Your task to perform on an android device: Clear all items from cart on target. Search for "razer blade" on target, select the first entry, and add it to the cart. Image 0: 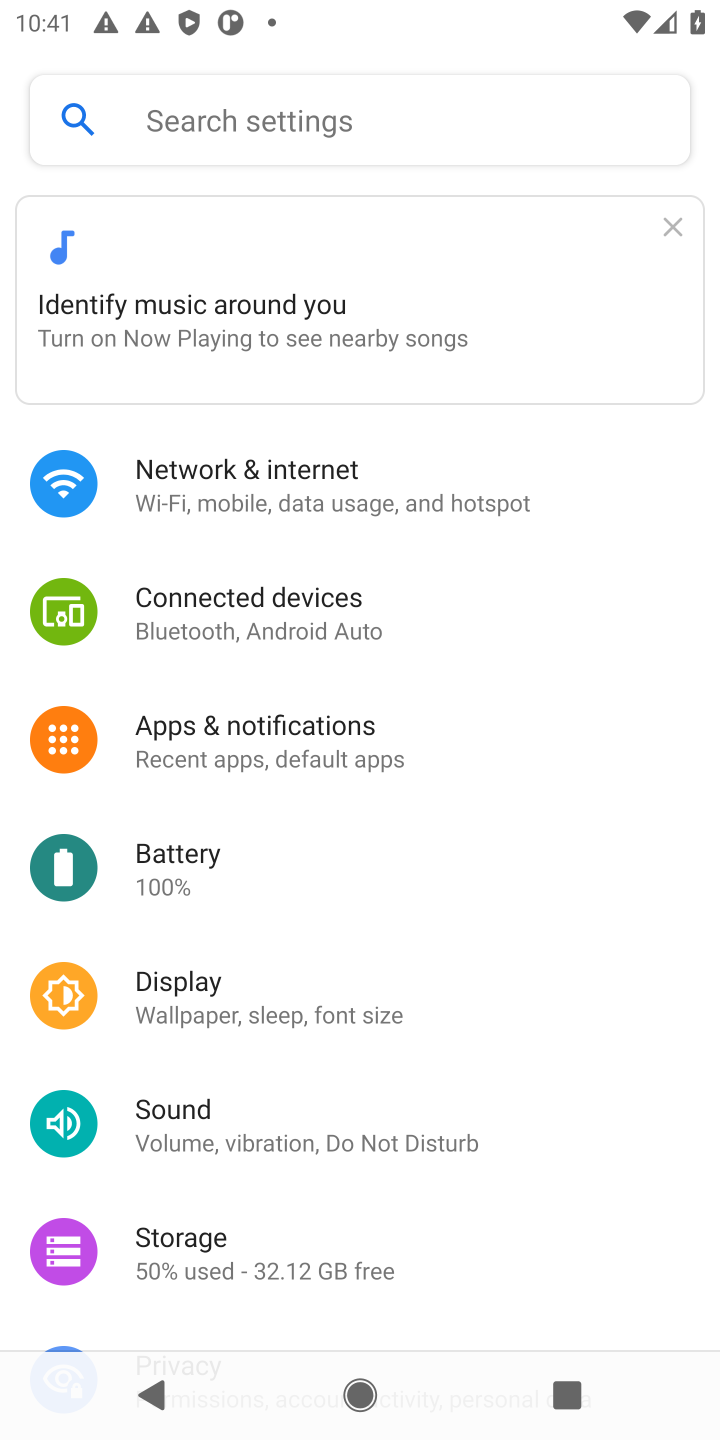
Step 0: press home button
Your task to perform on an android device: Clear all items from cart on target. Search for "razer blade" on target, select the first entry, and add it to the cart. Image 1: 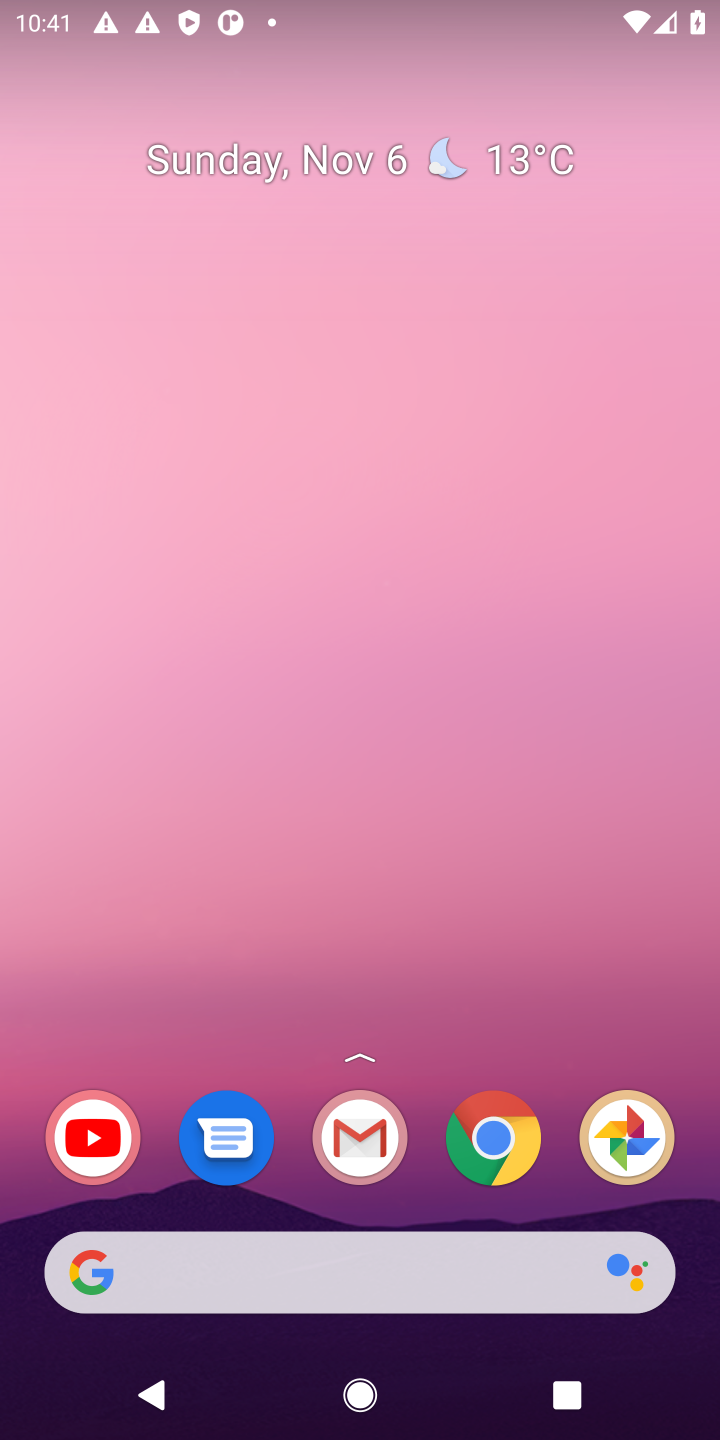
Step 1: click (489, 1145)
Your task to perform on an android device: Clear all items from cart on target. Search for "razer blade" on target, select the first entry, and add it to the cart. Image 2: 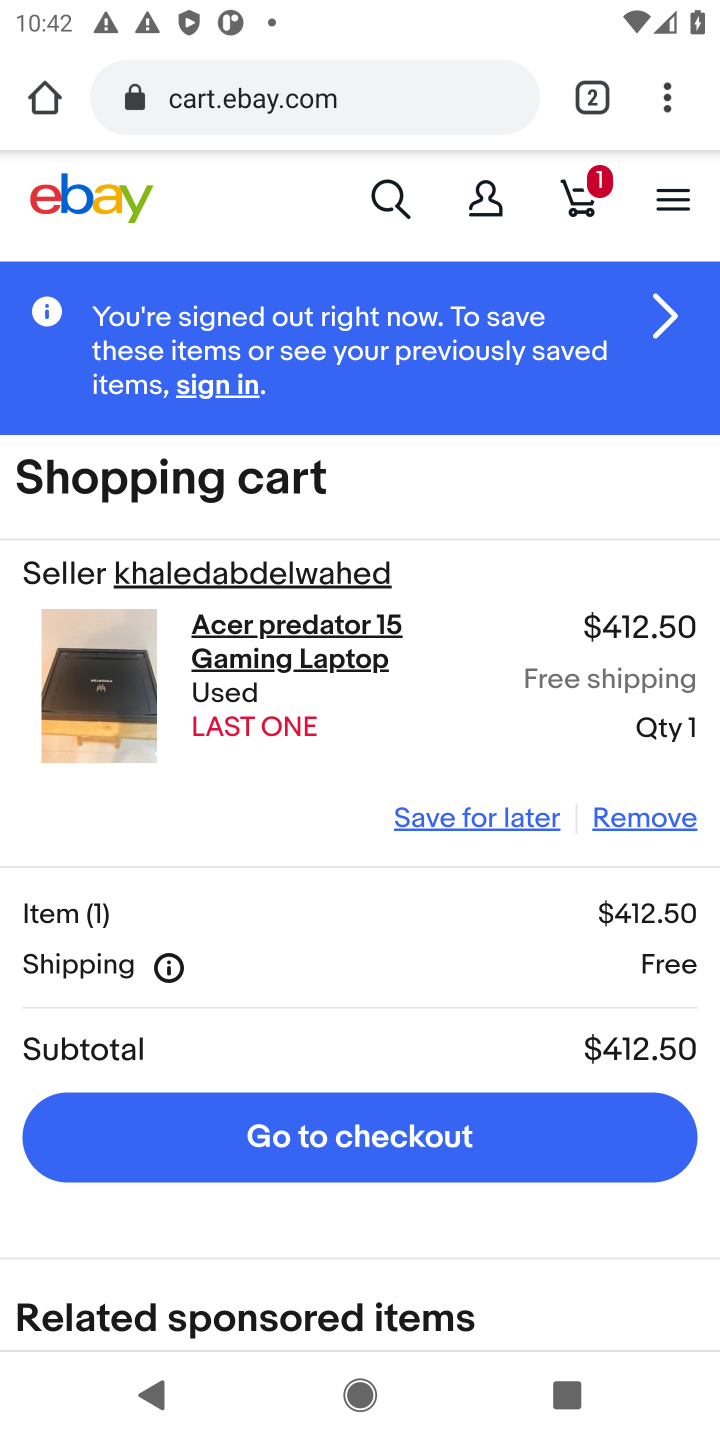
Step 2: click (368, 67)
Your task to perform on an android device: Clear all items from cart on target. Search for "razer blade" on target, select the first entry, and add it to the cart. Image 3: 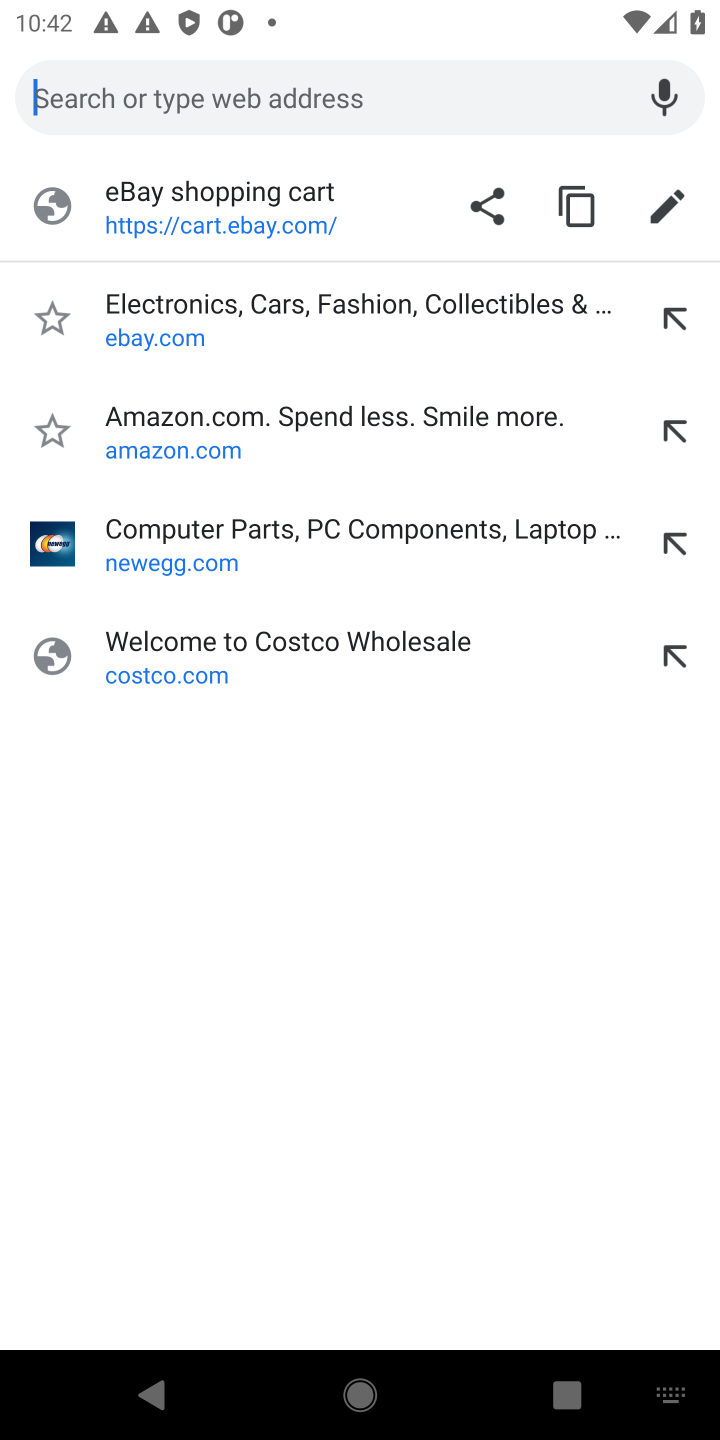
Step 3: type "target"
Your task to perform on an android device: Clear all items from cart on target. Search for "razer blade" on target, select the first entry, and add it to the cart. Image 4: 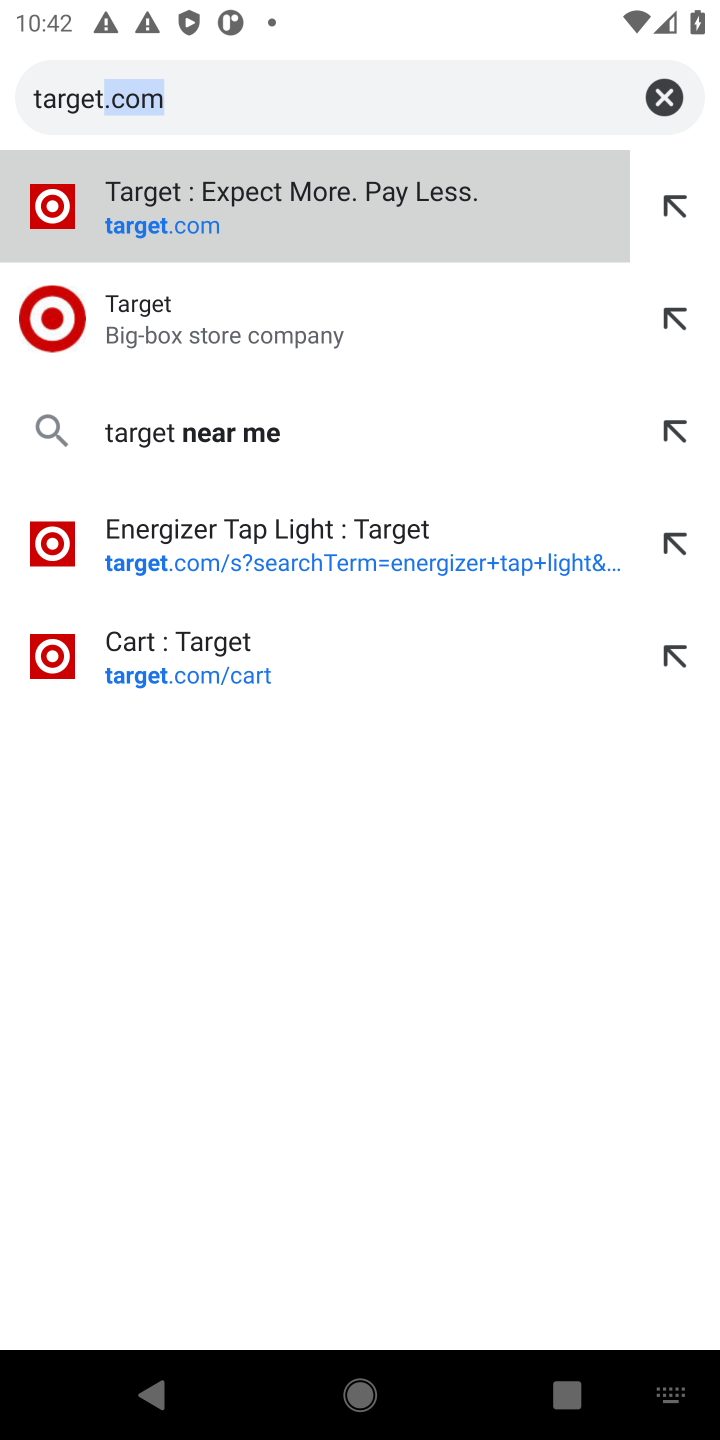
Step 4: click (161, 194)
Your task to perform on an android device: Clear all items from cart on target. Search for "razer blade" on target, select the first entry, and add it to the cart. Image 5: 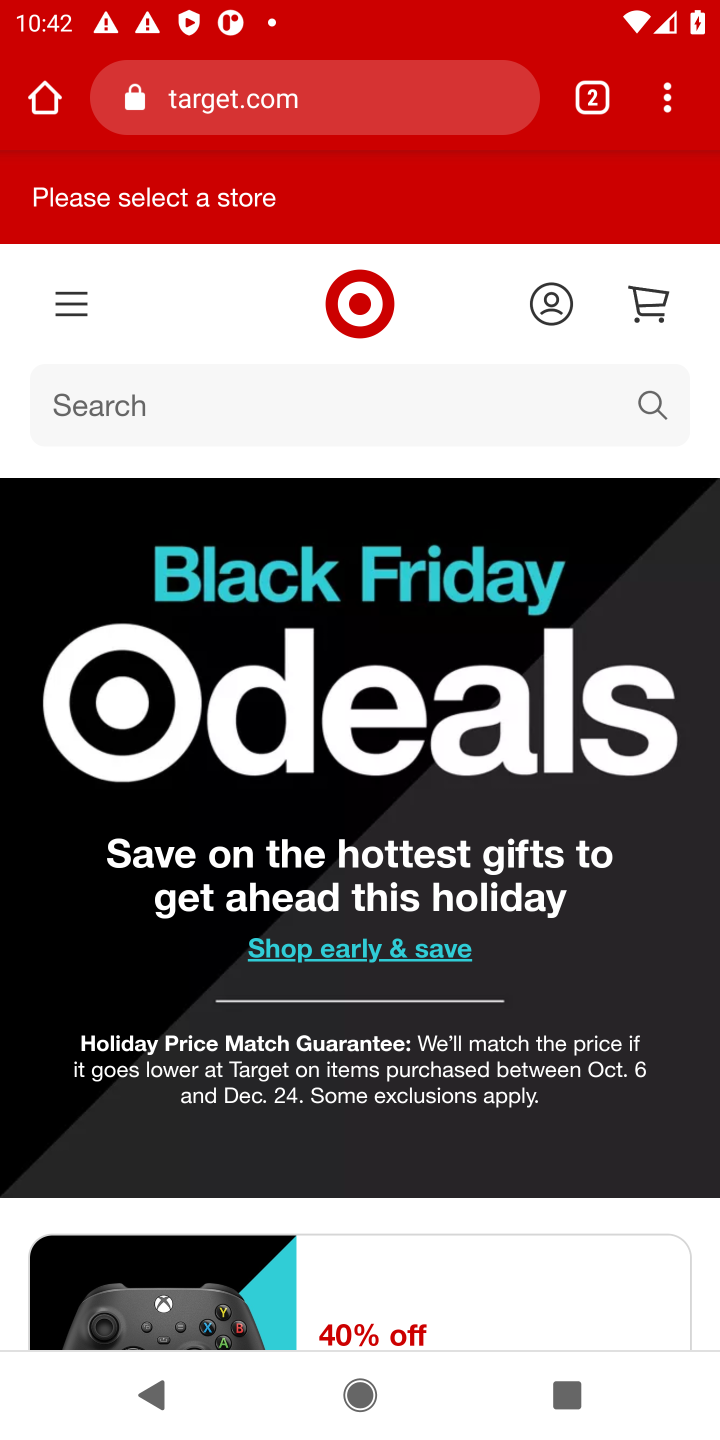
Step 5: click (647, 300)
Your task to perform on an android device: Clear all items from cart on target. Search for "razer blade" on target, select the first entry, and add it to the cart. Image 6: 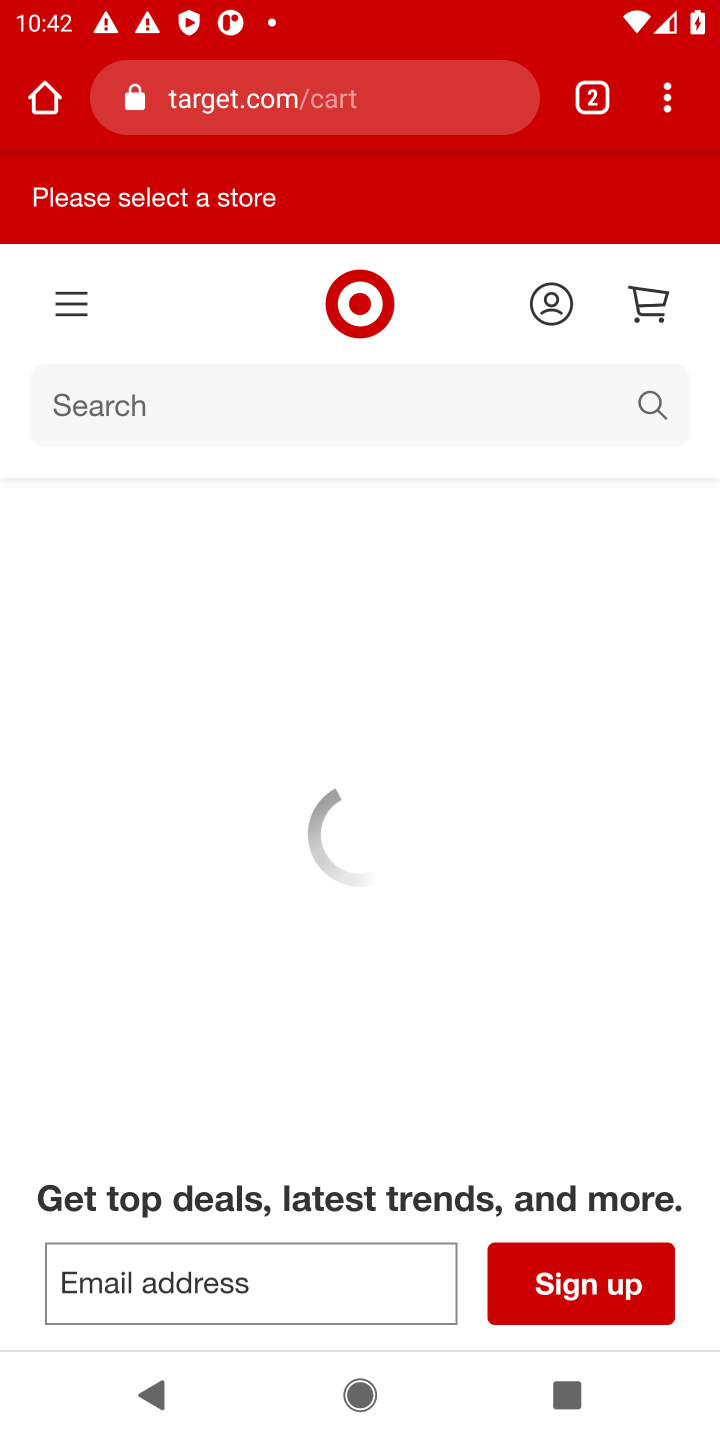
Step 6: click (144, 411)
Your task to perform on an android device: Clear all items from cart on target. Search for "razer blade" on target, select the first entry, and add it to the cart. Image 7: 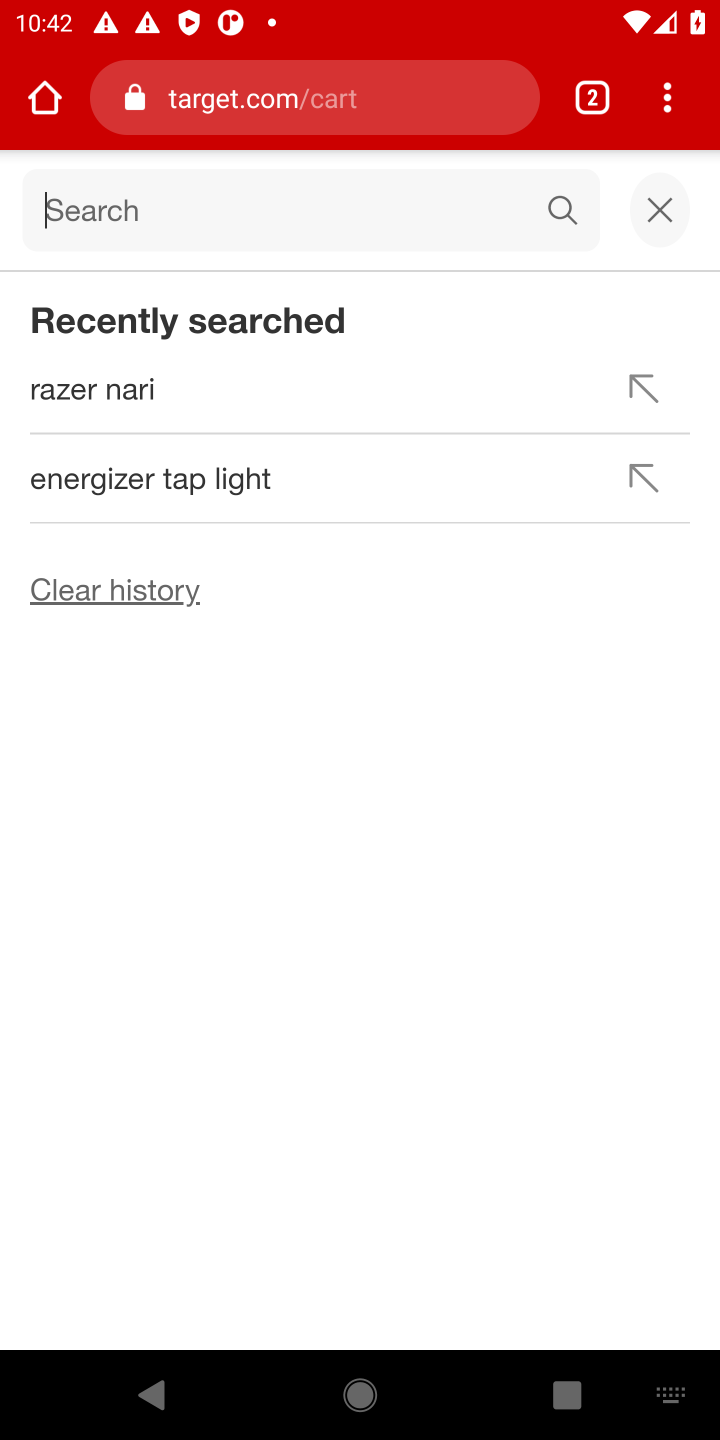
Step 7: type "razer blade"
Your task to perform on an android device: Clear all items from cart on target. Search for "razer blade" on target, select the first entry, and add it to the cart. Image 8: 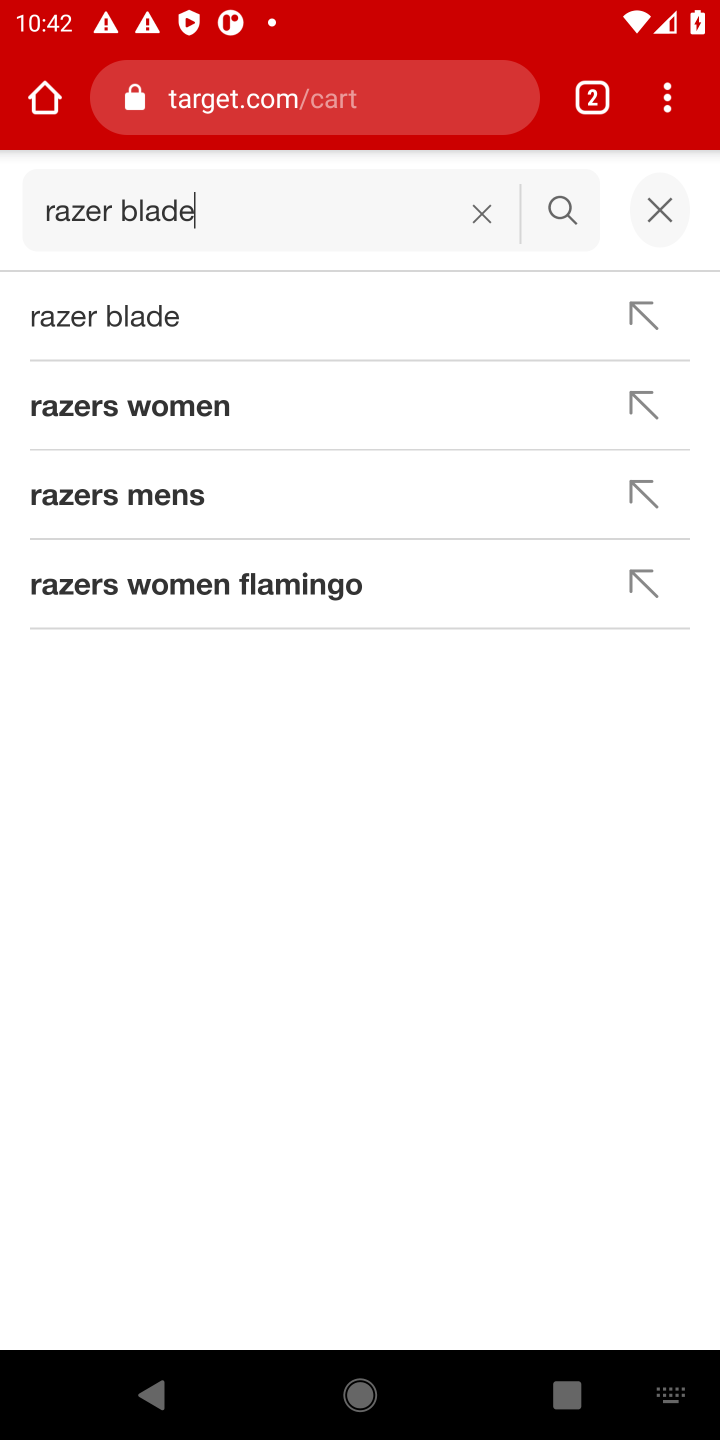
Step 8: click (68, 329)
Your task to perform on an android device: Clear all items from cart on target. Search for "razer blade" on target, select the first entry, and add it to the cart. Image 9: 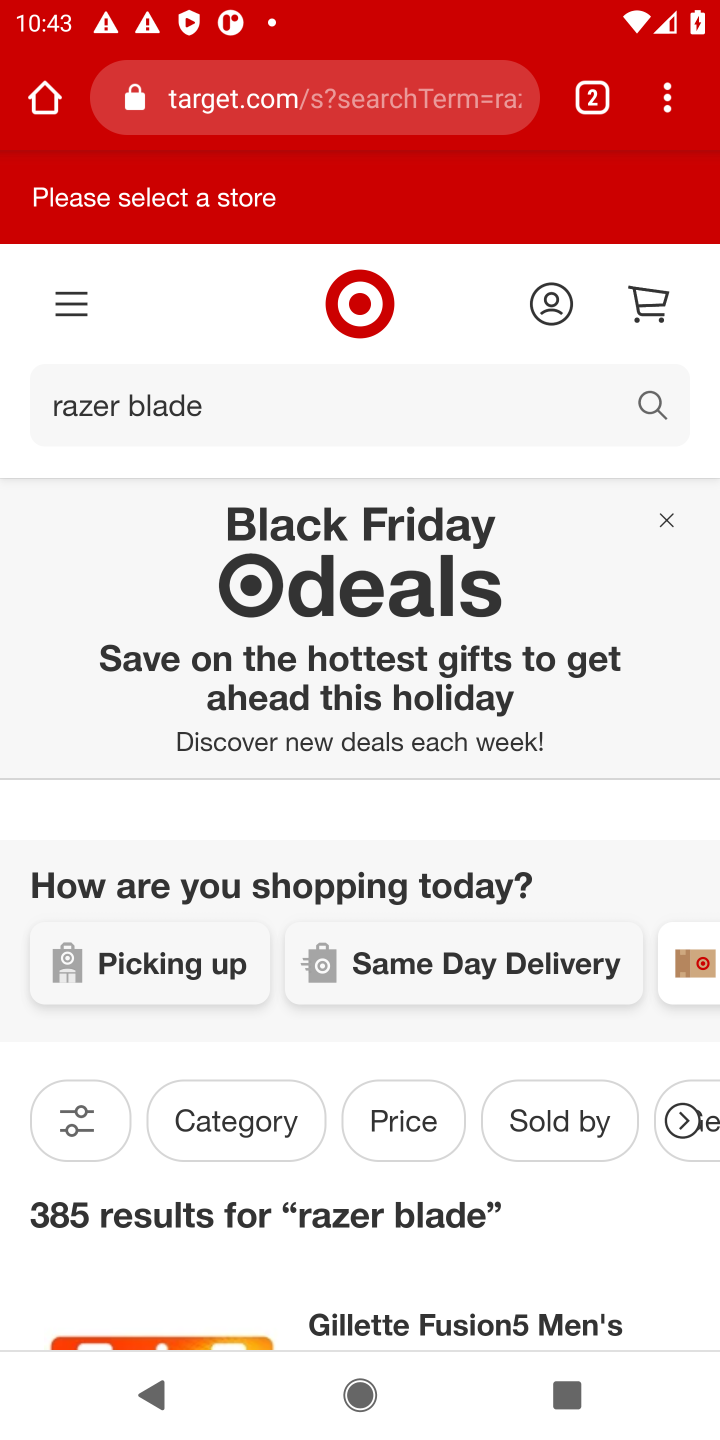
Step 9: drag from (417, 1029) to (398, 319)
Your task to perform on an android device: Clear all items from cart on target. Search for "razer blade" on target, select the first entry, and add it to the cart. Image 10: 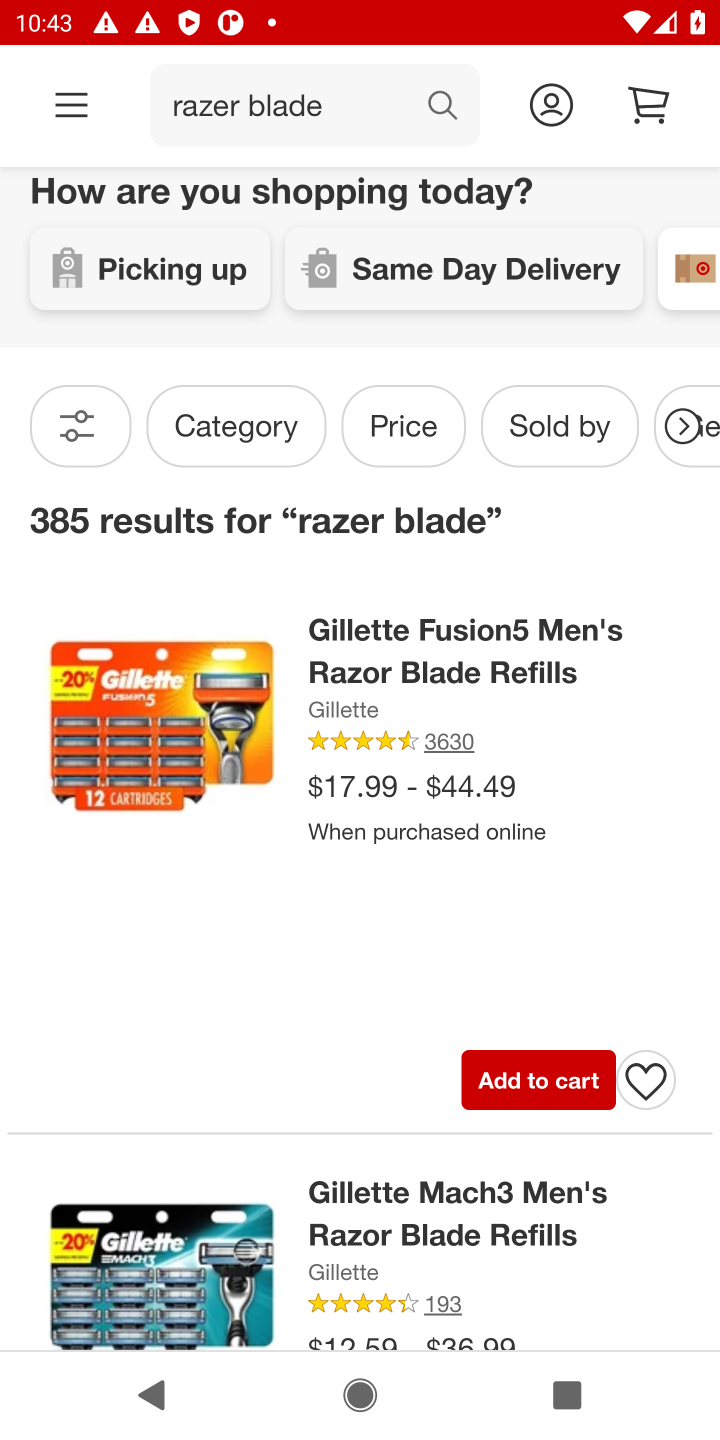
Step 10: drag from (393, 1009) to (415, 336)
Your task to perform on an android device: Clear all items from cart on target. Search for "razer blade" on target, select the first entry, and add it to the cart. Image 11: 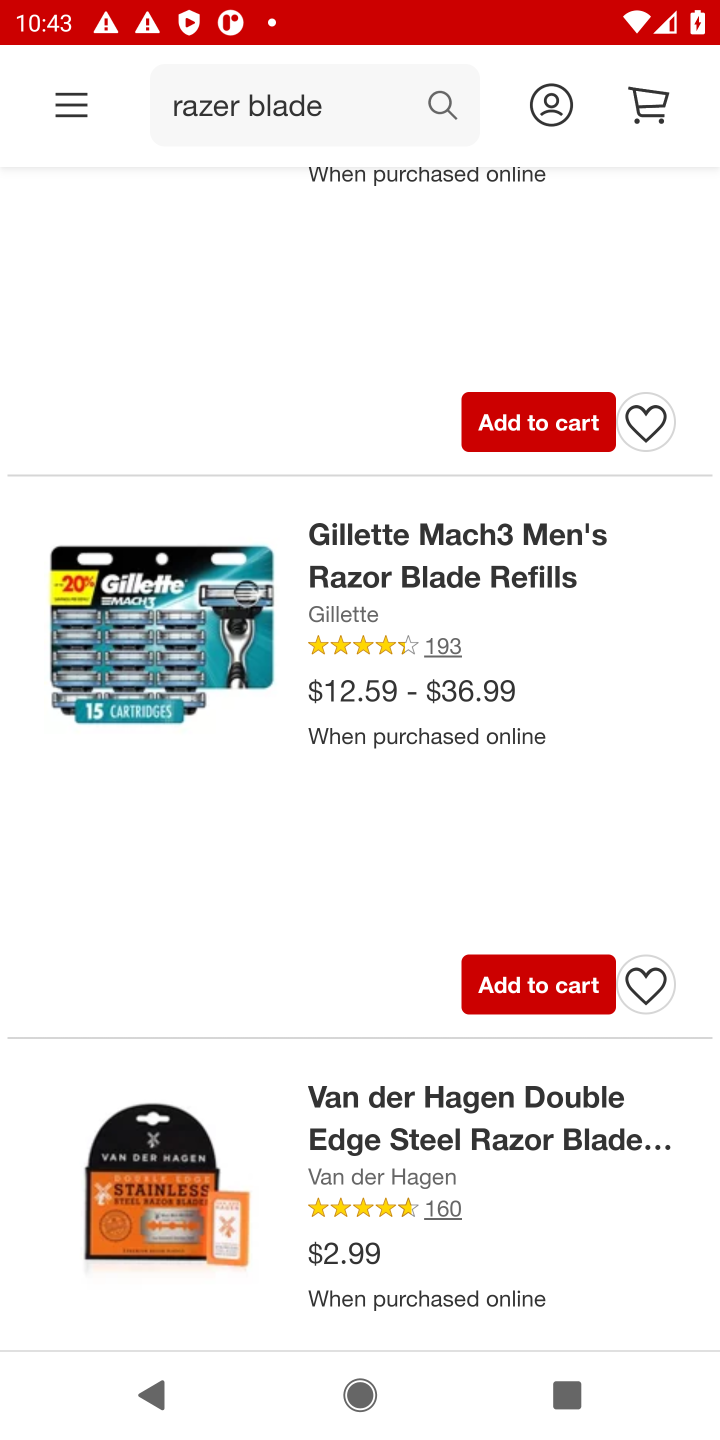
Step 11: click (419, 556)
Your task to perform on an android device: Clear all items from cart on target. Search for "razer blade" on target, select the first entry, and add it to the cart. Image 12: 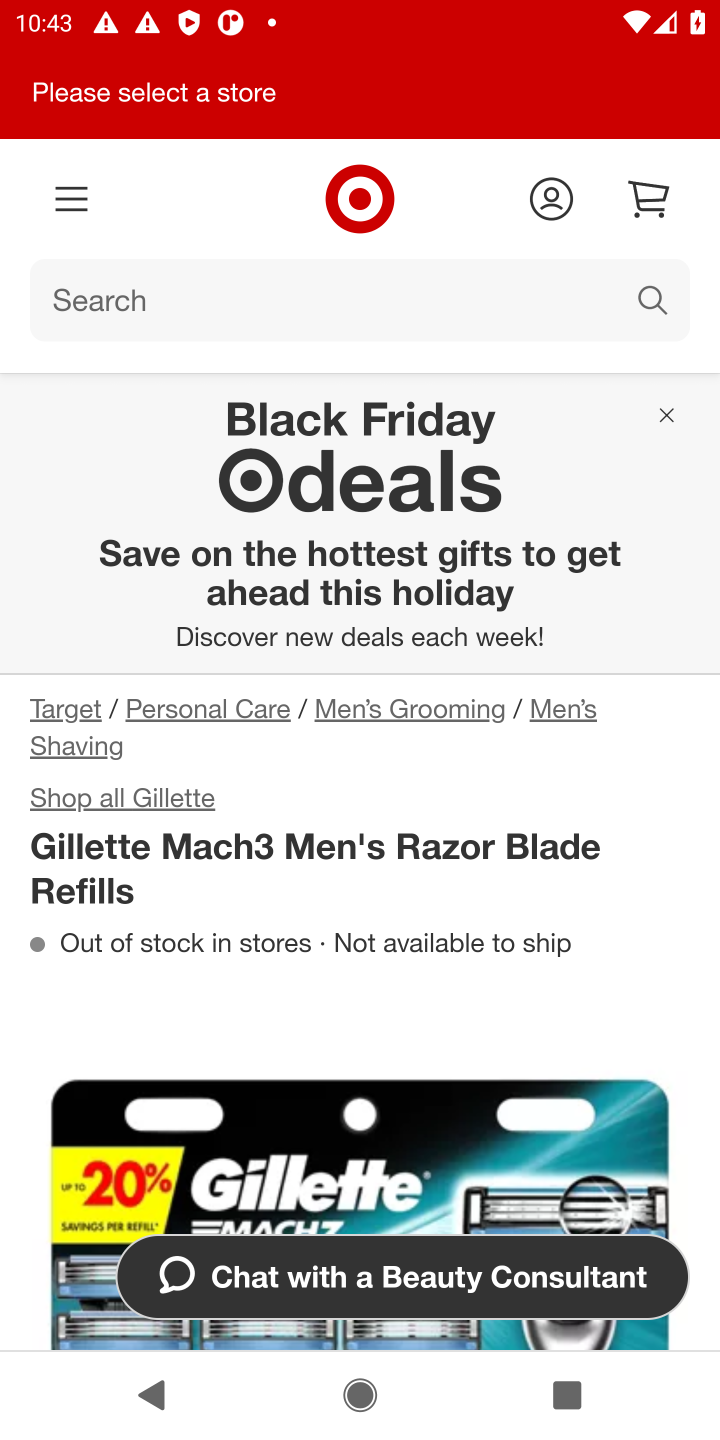
Step 12: drag from (508, 1055) to (479, 421)
Your task to perform on an android device: Clear all items from cart on target. Search for "razer blade" on target, select the first entry, and add it to the cart. Image 13: 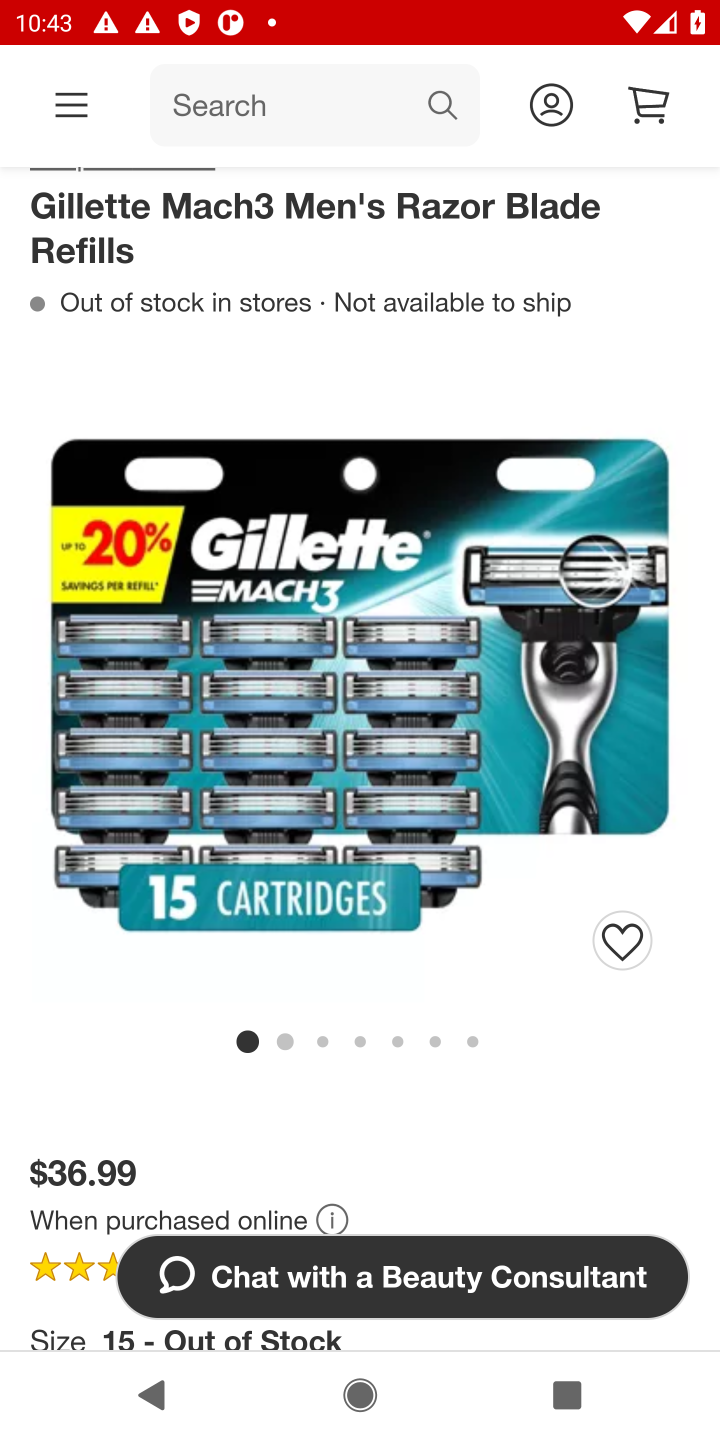
Step 13: drag from (504, 1059) to (420, 373)
Your task to perform on an android device: Clear all items from cart on target. Search for "razer blade" on target, select the first entry, and add it to the cart. Image 14: 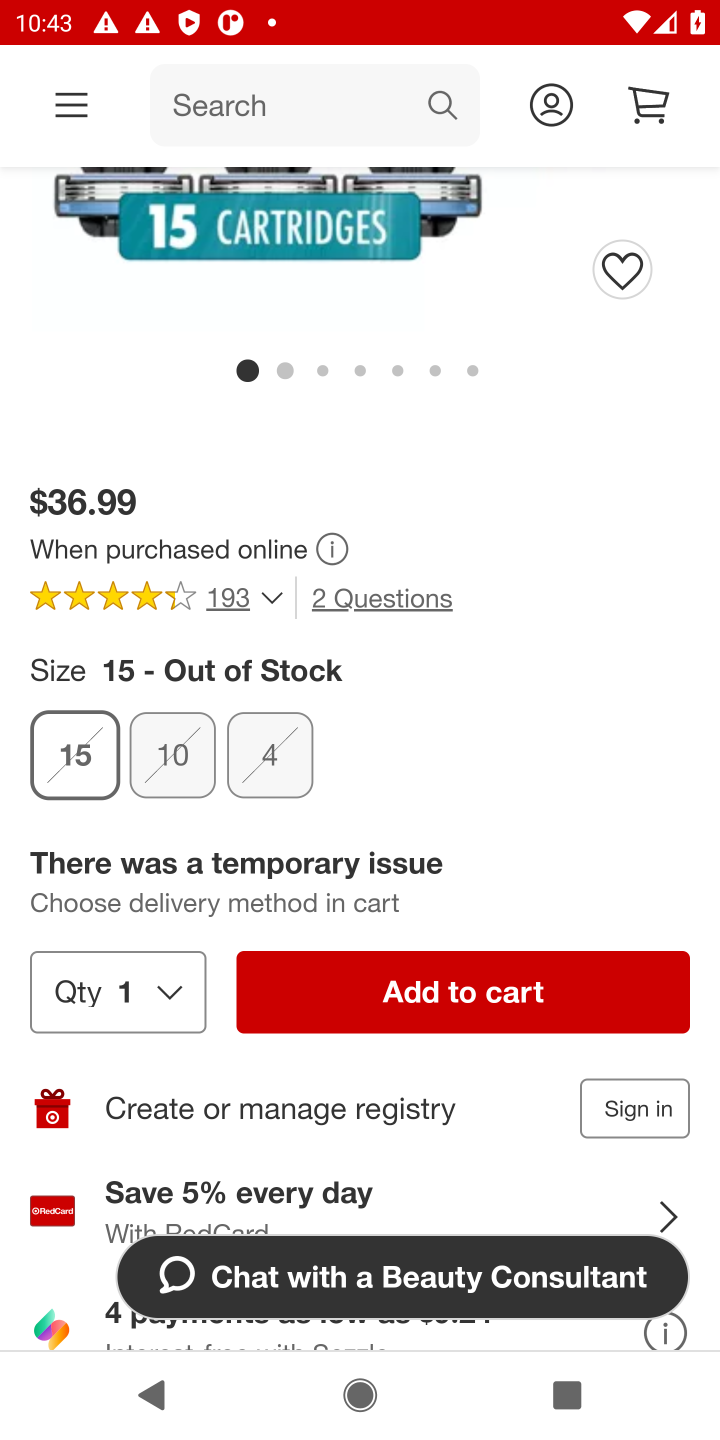
Step 14: click (470, 1003)
Your task to perform on an android device: Clear all items from cart on target. Search for "razer blade" on target, select the first entry, and add it to the cart. Image 15: 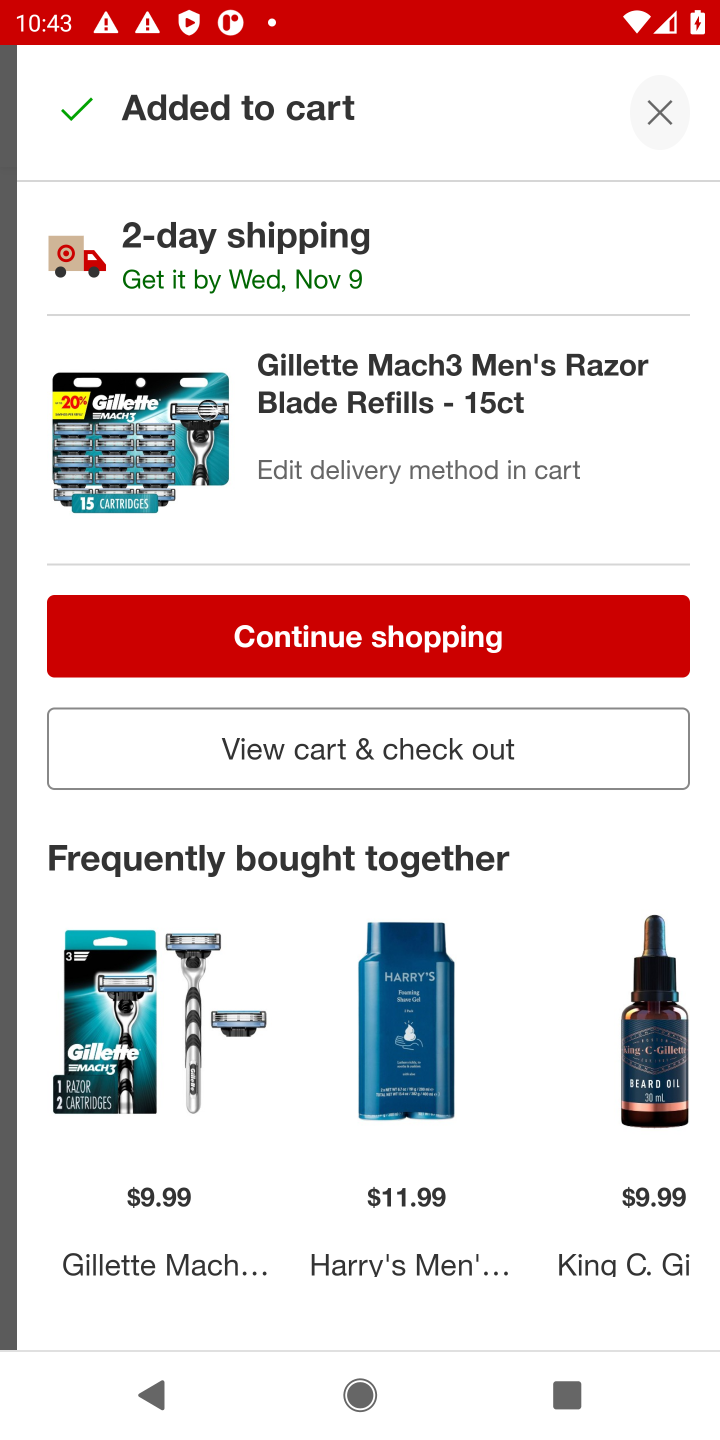
Step 15: click (334, 617)
Your task to perform on an android device: Clear all items from cart on target. Search for "razer blade" on target, select the first entry, and add it to the cart. Image 16: 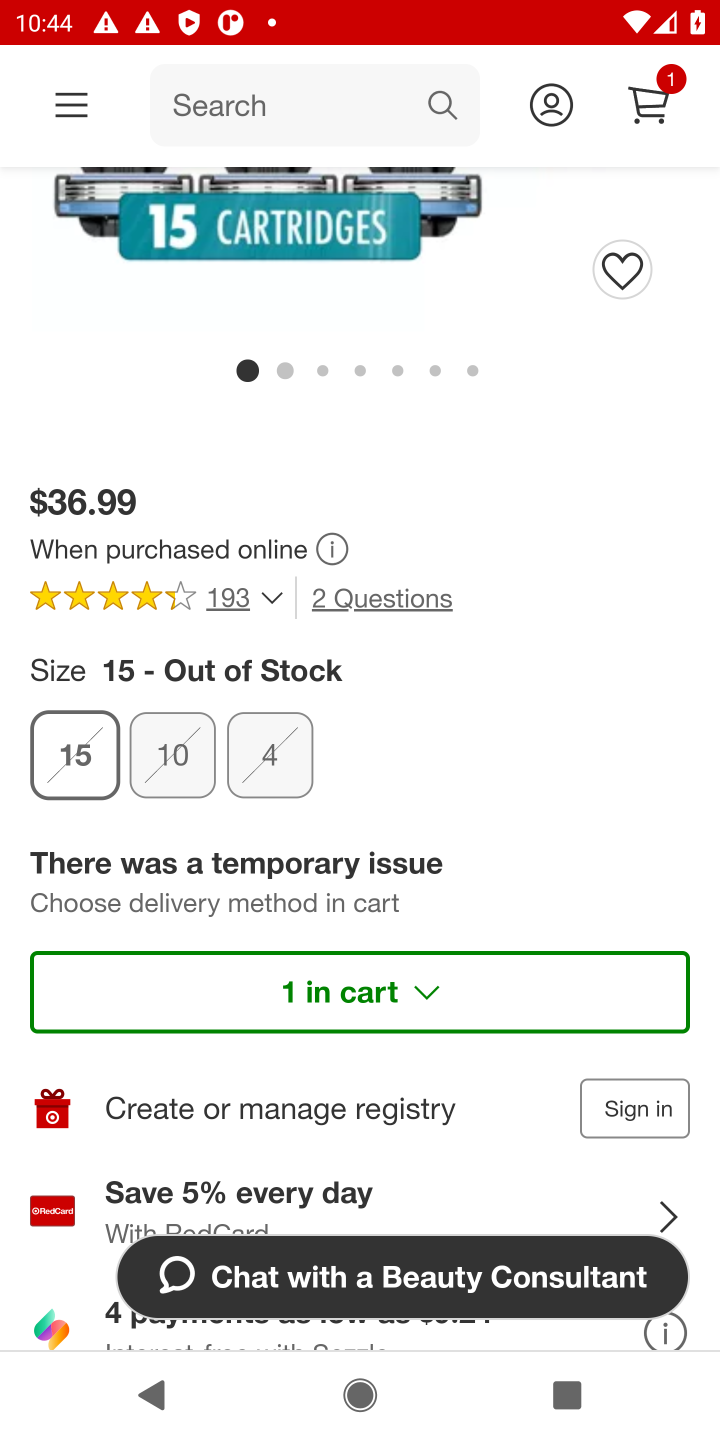
Step 16: task complete